Your task to perform on an android device: Show me the alarms in the clock app Image 0: 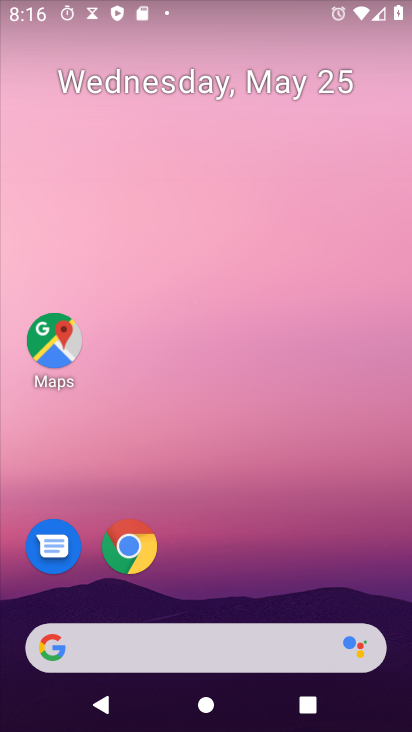
Step 0: drag from (206, 573) to (335, 7)
Your task to perform on an android device: Show me the alarms in the clock app Image 1: 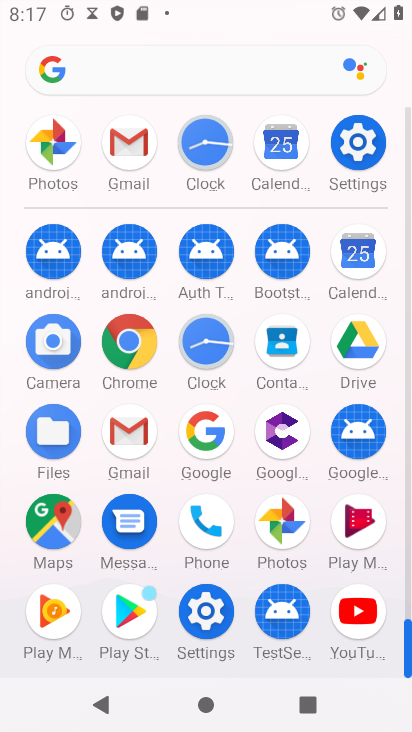
Step 1: click (201, 191)
Your task to perform on an android device: Show me the alarms in the clock app Image 2: 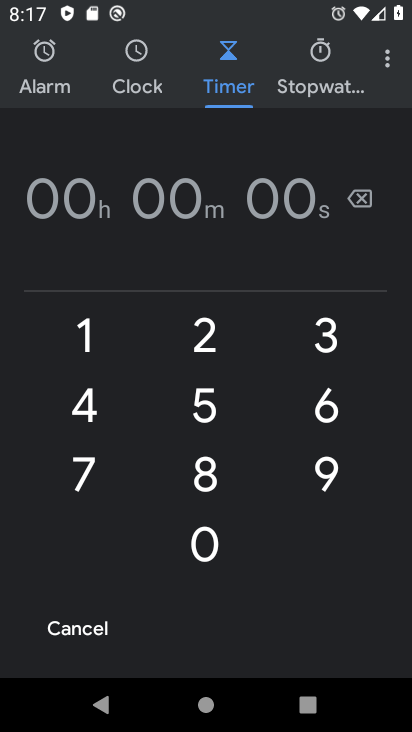
Step 2: click (54, 93)
Your task to perform on an android device: Show me the alarms in the clock app Image 3: 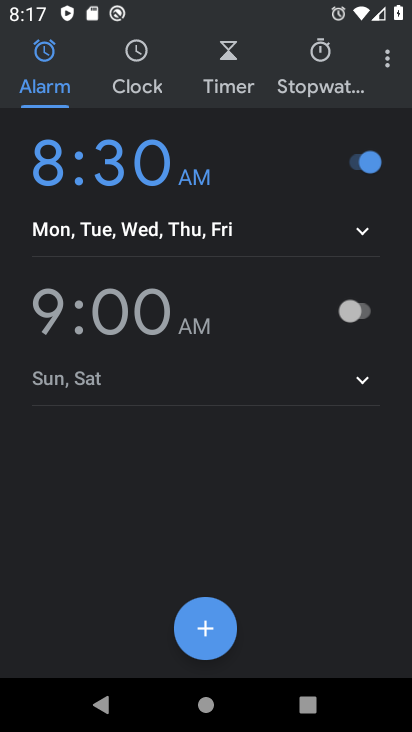
Step 3: task complete